Your task to perform on an android device: check storage Image 0: 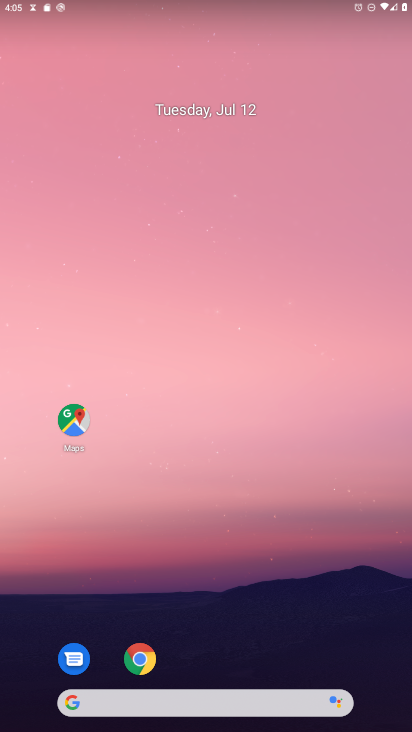
Step 0: click (142, 657)
Your task to perform on an android device: check storage Image 1: 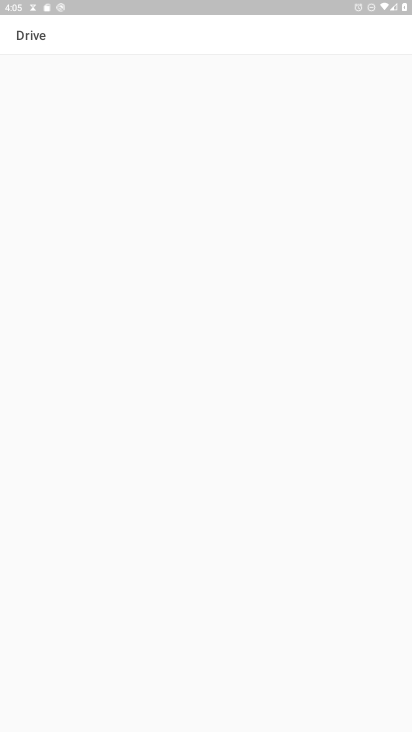
Step 1: click (142, 657)
Your task to perform on an android device: check storage Image 2: 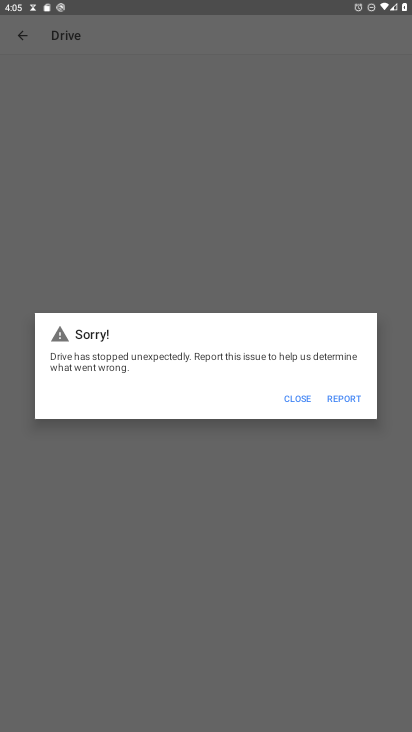
Step 2: click (300, 401)
Your task to perform on an android device: check storage Image 3: 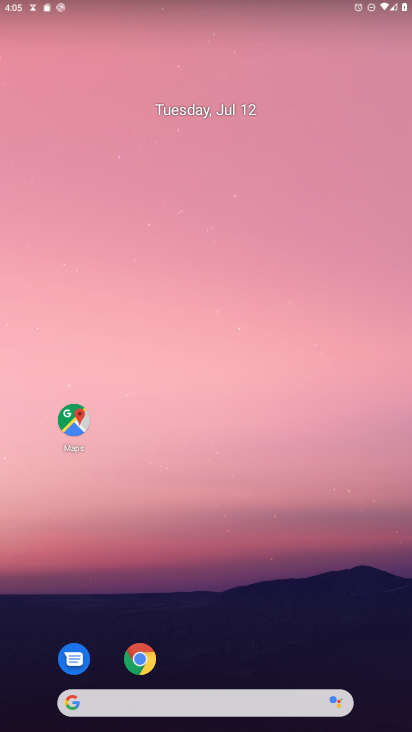
Step 3: click (142, 678)
Your task to perform on an android device: check storage Image 4: 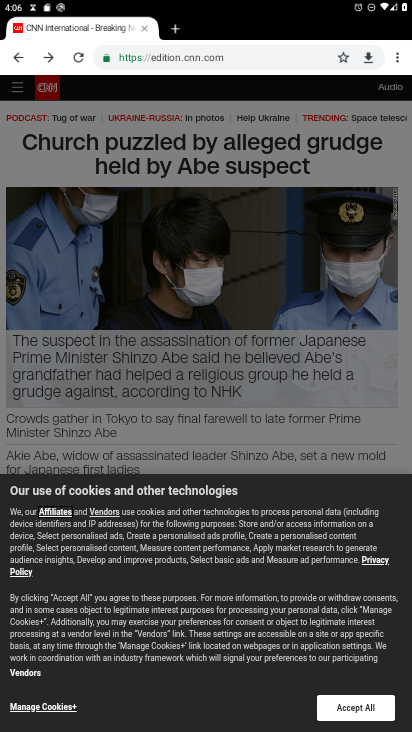
Step 4: press home button
Your task to perform on an android device: check storage Image 5: 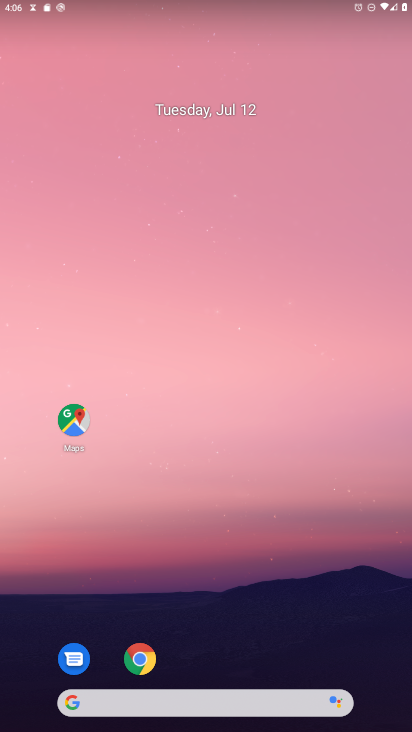
Step 5: drag from (195, 607) to (181, 114)
Your task to perform on an android device: check storage Image 6: 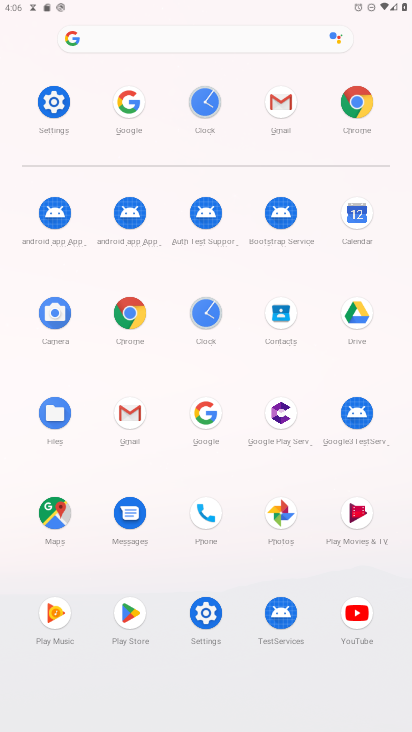
Step 6: click (51, 105)
Your task to perform on an android device: check storage Image 7: 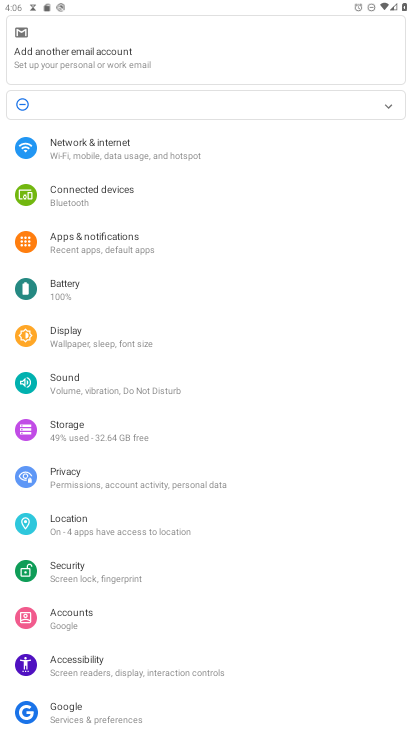
Step 7: click (77, 439)
Your task to perform on an android device: check storage Image 8: 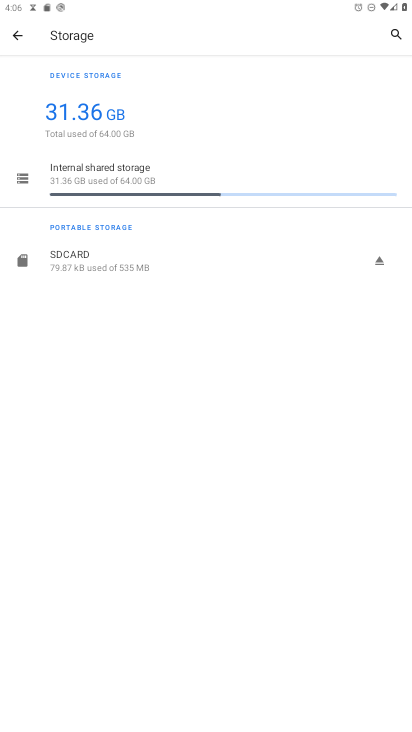
Step 8: task complete